Your task to perform on an android device: Go to calendar. Show me events next week Image 0: 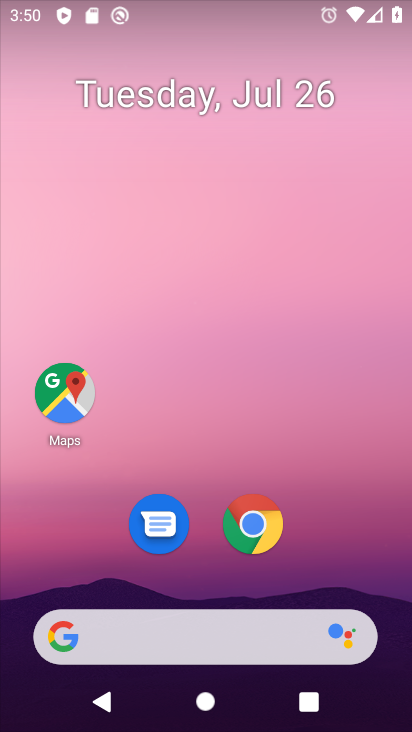
Step 0: drag from (365, 514) to (330, 28)
Your task to perform on an android device: Go to calendar. Show me events next week Image 1: 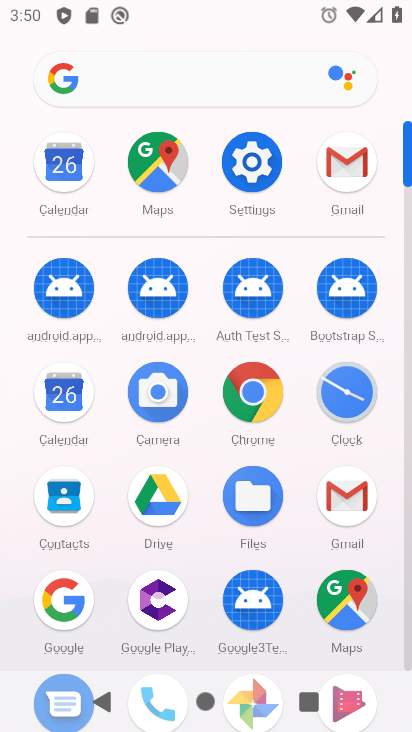
Step 1: click (73, 163)
Your task to perform on an android device: Go to calendar. Show me events next week Image 2: 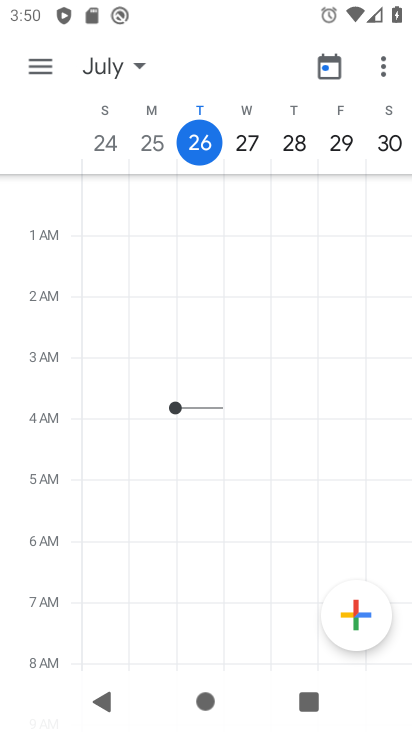
Step 2: task complete